Your task to perform on an android device: find which apps use the phone's location Image 0: 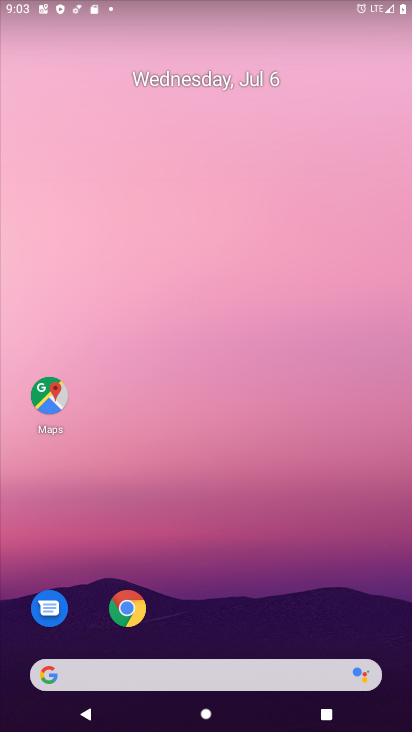
Step 0: drag from (359, 625) to (304, 10)
Your task to perform on an android device: find which apps use the phone's location Image 1: 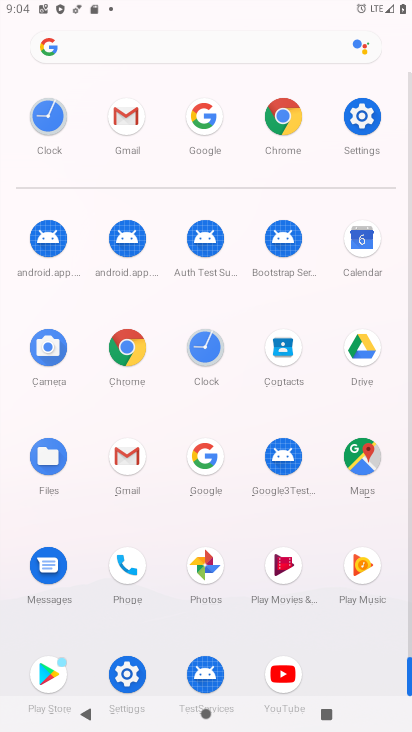
Step 1: click (356, 116)
Your task to perform on an android device: find which apps use the phone's location Image 2: 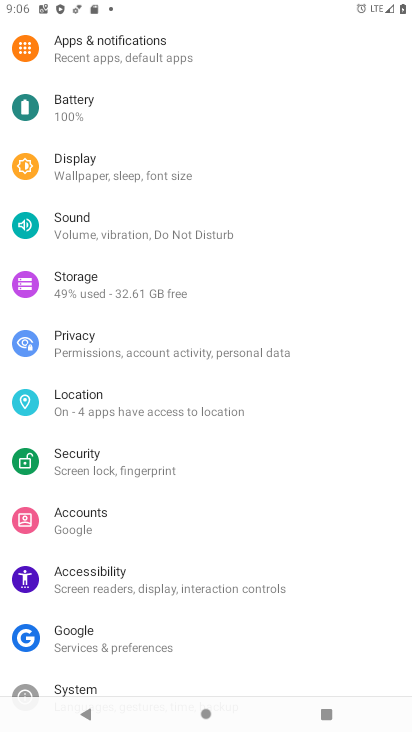
Step 2: task complete